Your task to perform on an android device: move an email to a new category in the gmail app Image 0: 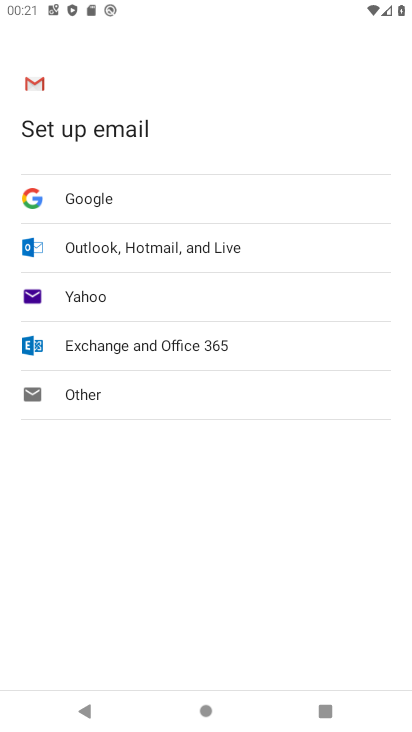
Step 0: drag from (194, 477) to (245, 339)
Your task to perform on an android device: move an email to a new category in the gmail app Image 1: 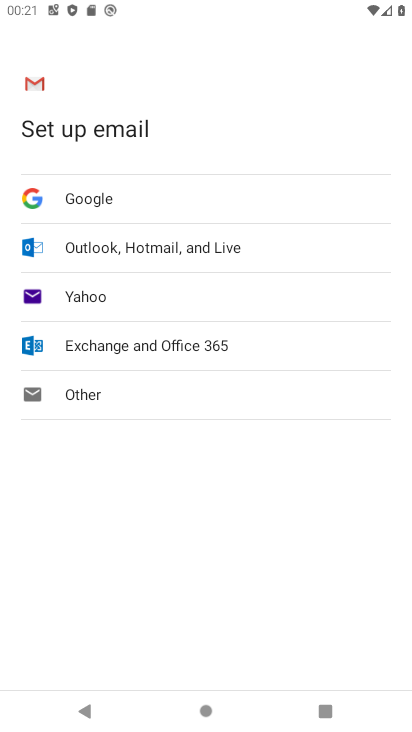
Step 1: press home button
Your task to perform on an android device: move an email to a new category in the gmail app Image 2: 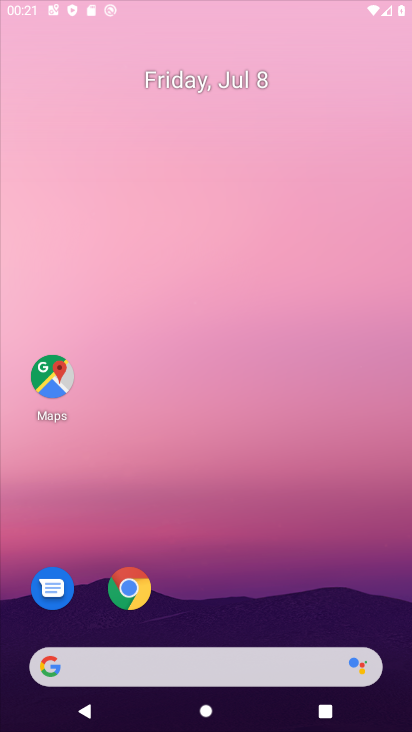
Step 2: drag from (234, 575) to (328, 98)
Your task to perform on an android device: move an email to a new category in the gmail app Image 3: 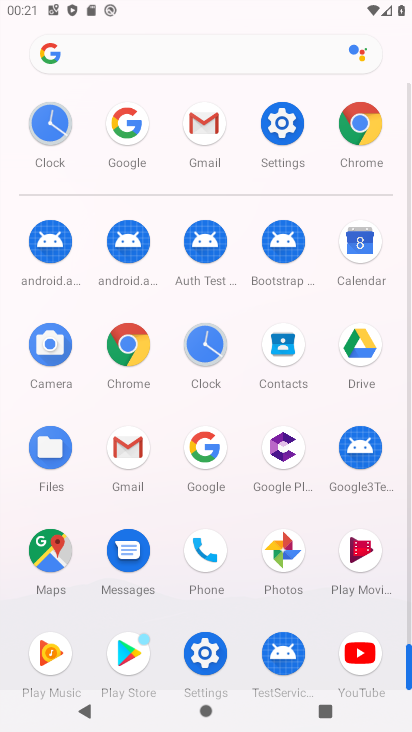
Step 3: click (209, 130)
Your task to perform on an android device: move an email to a new category in the gmail app Image 4: 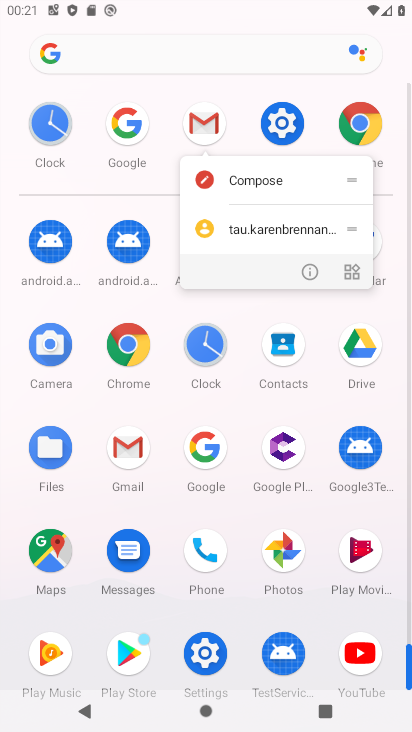
Step 4: click (303, 268)
Your task to perform on an android device: move an email to a new category in the gmail app Image 5: 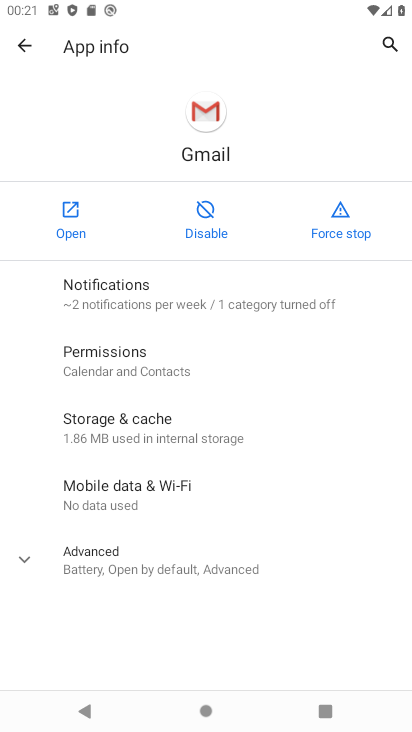
Step 5: click (59, 214)
Your task to perform on an android device: move an email to a new category in the gmail app Image 6: 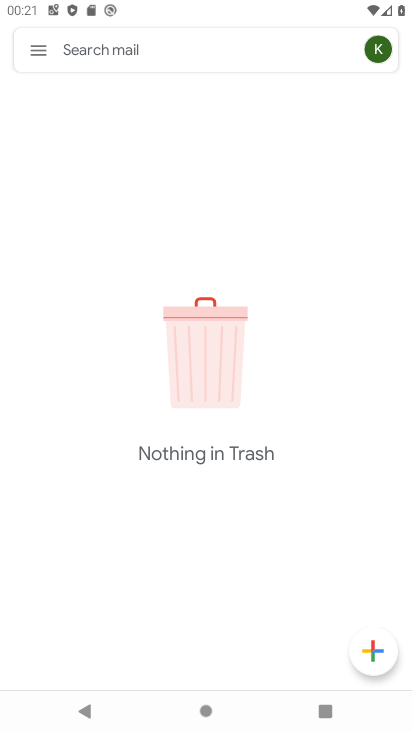
Step 6: click (40, 51)
Your task to perform on an android device: move an email to a new category in the gmail app Image 7: 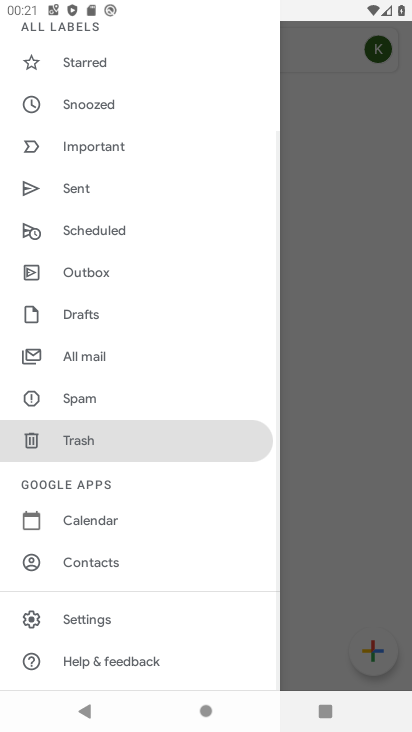
Step 7: drag from (137, 534) to (181, 236)
Your task to perform on an android device: move an email to a new category in the gmail app Image 8: 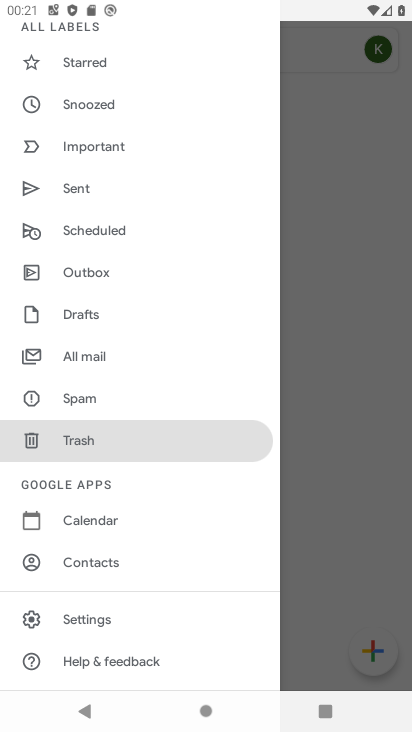
Step 8: drag from (130, 72) to (208, 727)
Your task to perform on an android device: move an email to a new category in the gmail app Image 9: 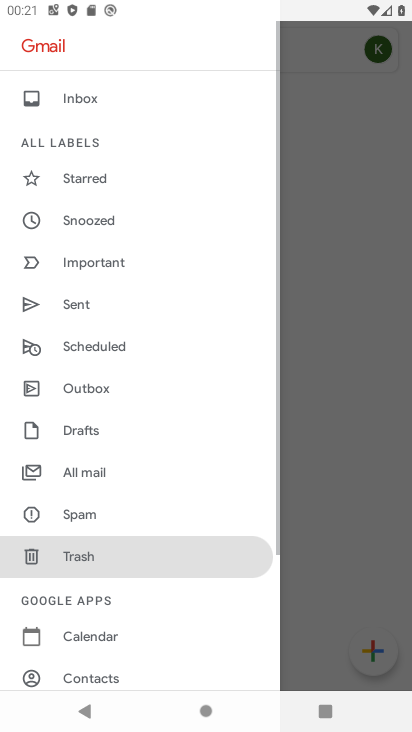
Step 9: click (99, 99)
Your task to perform on an android device: move an email to a new category in the gmail app Image 10: 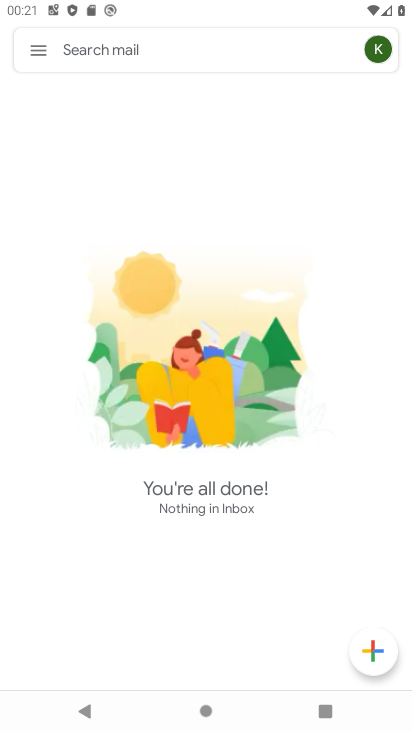
Step 10: click (361, 201)
Your task to perform on an android device: move an email to a new category in the gmail app Image 11: 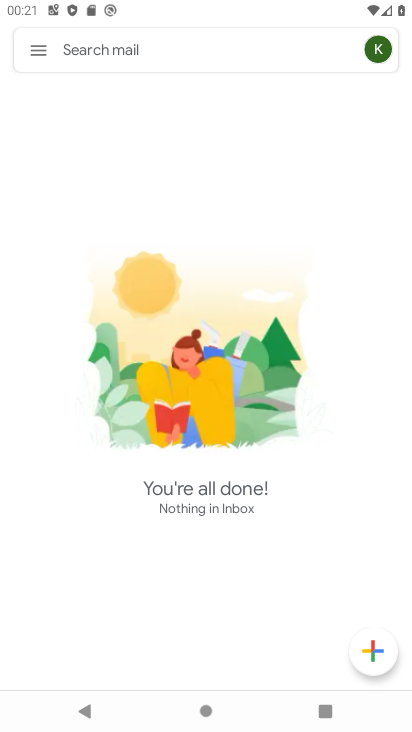
Step 11: task complete